Your task to perform on an android device: star an email in the gmail app Image 0: 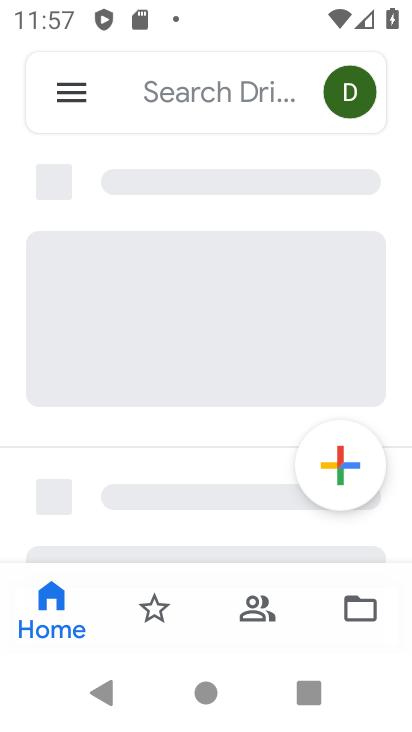
Step 0: press back button
Your task to perform on an android device: star an email in the gmail app Image 1: 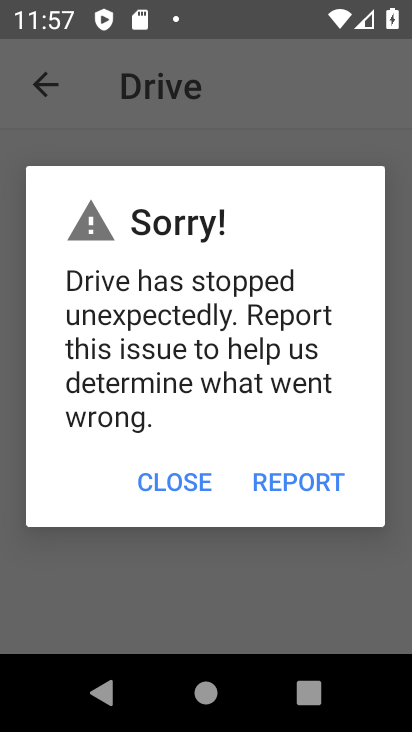
Step 1: press home button
Your task to perform on an android device: star an email in the gmail app Image 2: 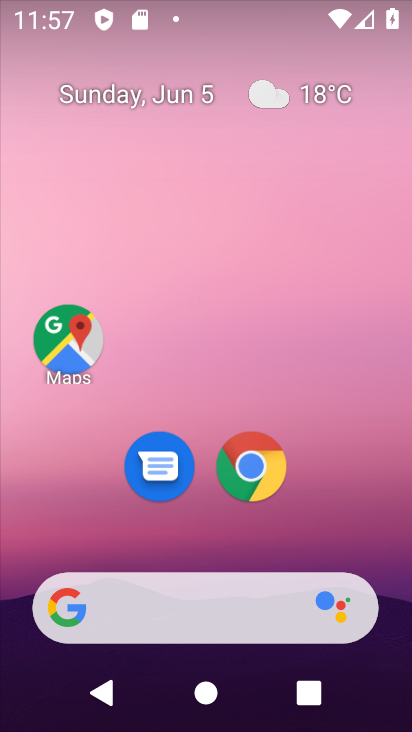
Step 2: drag from (354, 508) to (170, 21)
Your task to perform on an android device: star an email in the gmail app Image 3: 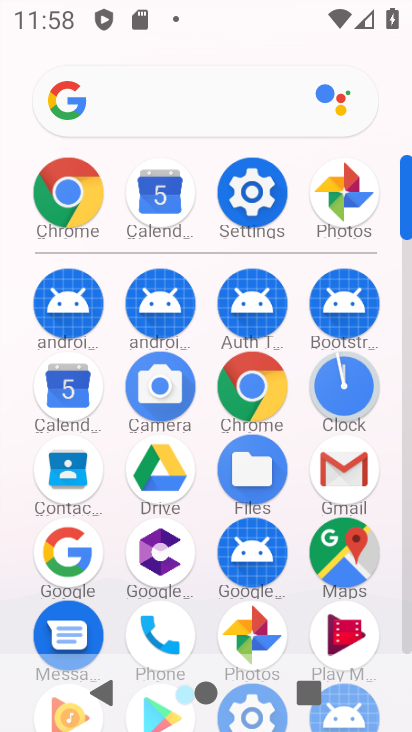
Step 3: click (343, 462)
Your task to perform on an android device: star an email in the gmail app Image 4: 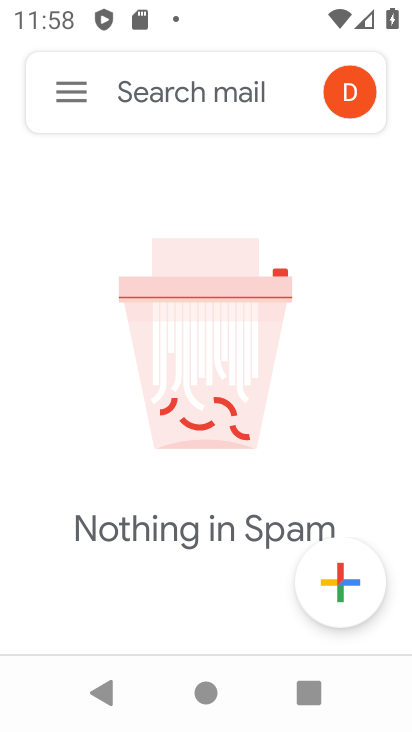
Step 4: click (66, 89)
Your task to perform on an android device: star an email in the gmail app Image 5: 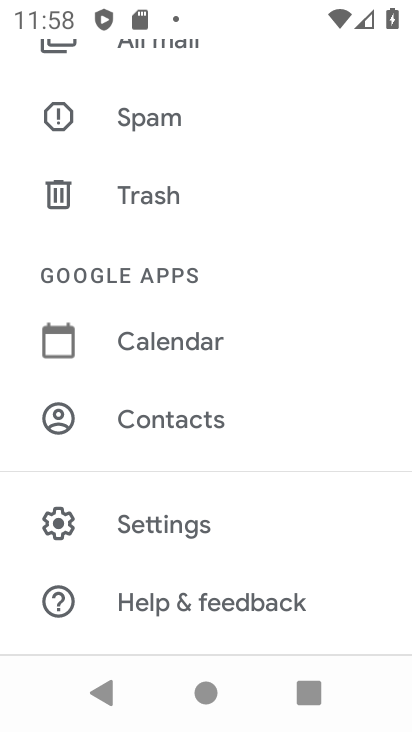
Step 5: drag from (250, 178) to (280, 576)
Your task to perform on an android device: star an email in the gmail app Image 6: 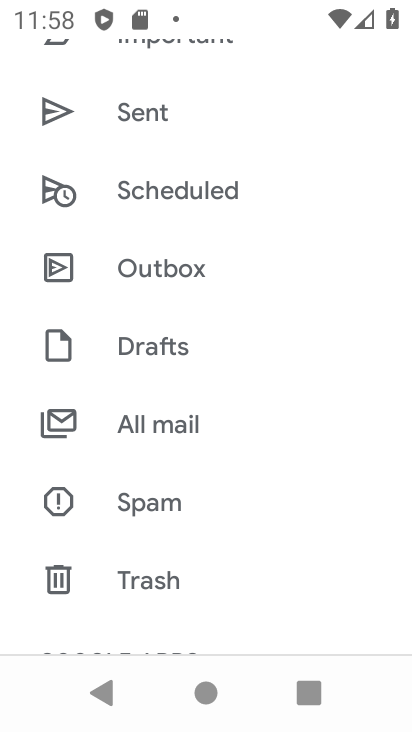
Step 6: drag from (259, 283) to (276, 584)
Your task to perform on an android device: star an email in the gmail app Image 7: 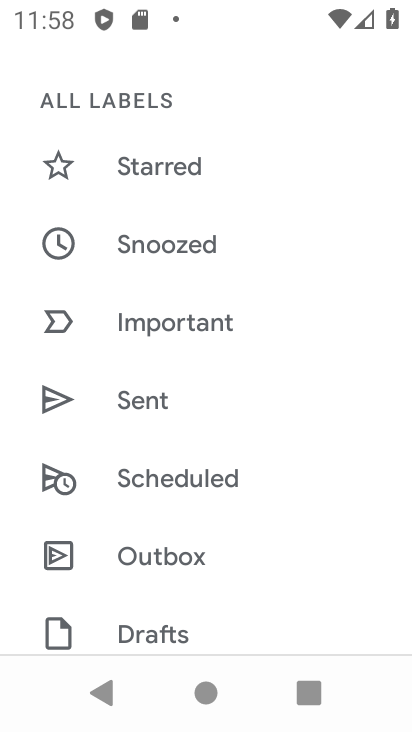
Step 7: click (194, 172)
Your task to perform on an android device: star an email in the gmail app Image 8: 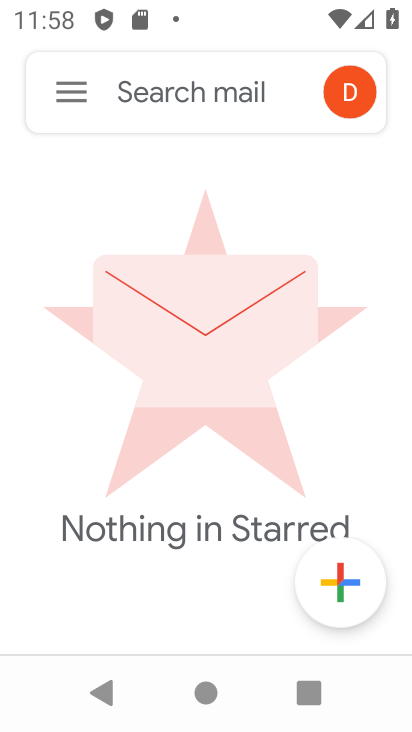
Step 8: task complete